Your task to perform on an android device: Open Youtube and go to "Your channel" Image 0: 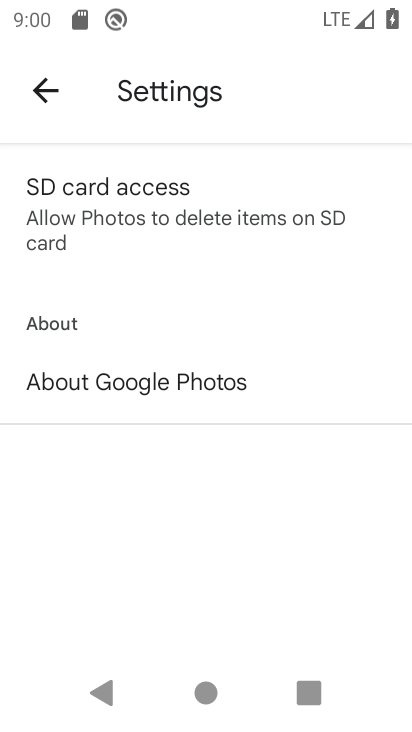
Step 0: press home button
Your task to perform on an android device: Open Youtube and go to "Your channel" Image 1: 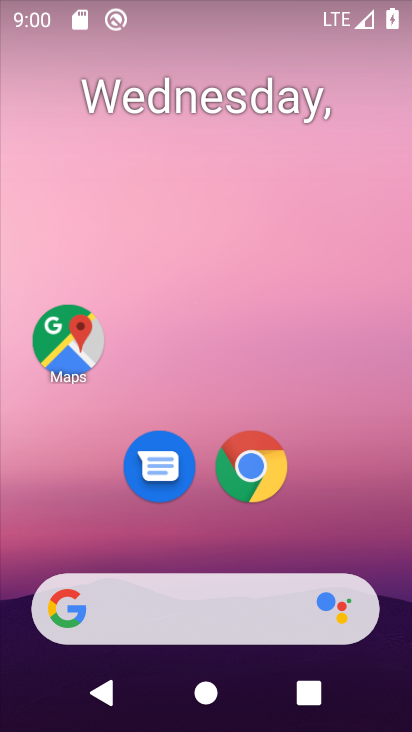
Step 1: drag from (209, 725) to (185, 138)
Your task to perform on an android device: Open Youtube and go to "Your channel" Image 2: 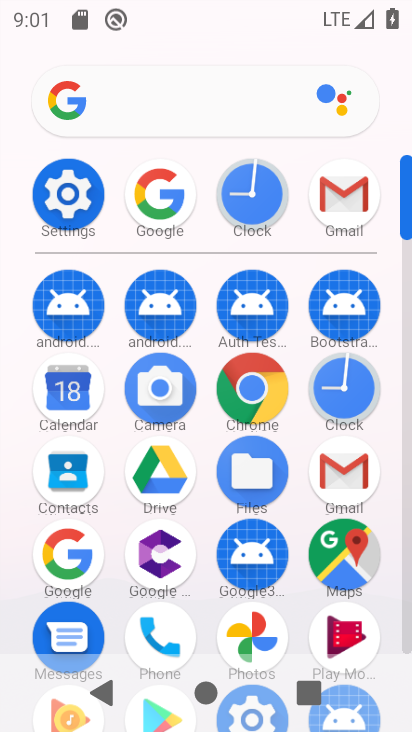
Step 2: drag from (212, 666) to (153, 332)
Your task to perform on an android device: Open Youtube and go to "Your channel" Image 3: 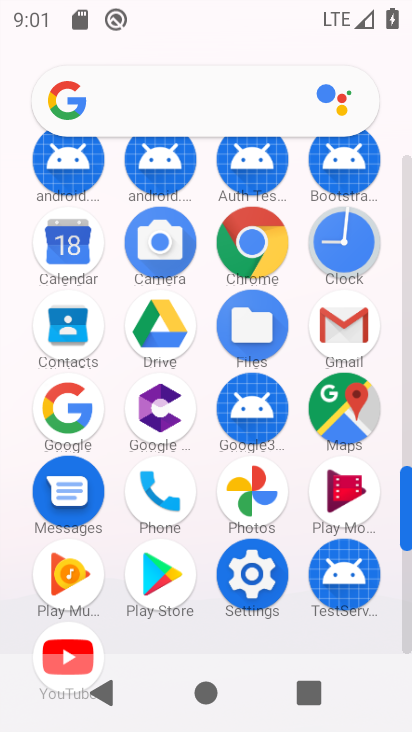
Step 3: click (77, 643)
Your task to perform on an android device: Open Youtube and go to "Your channel" Image 4: 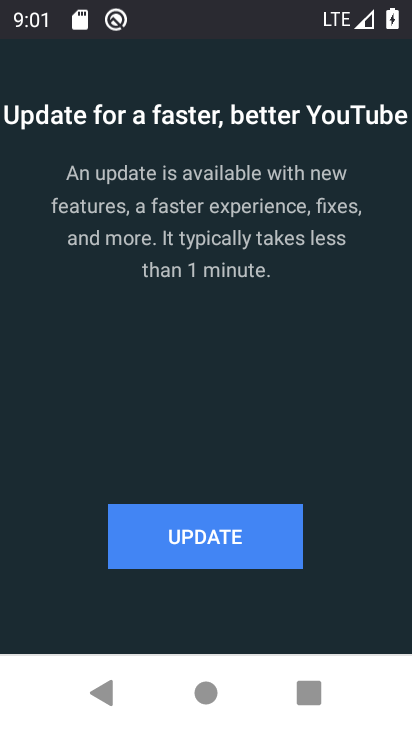
Step 4: task complete